Your task to perform on an android device: Open internet settings Image 0: 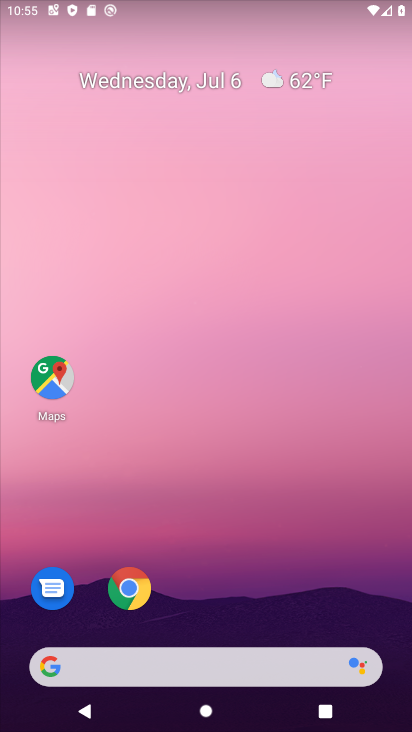
Step 0: drag from (391, 619) to (326, 136)
Your task to perform on an android device: Open internet settings Image 1: 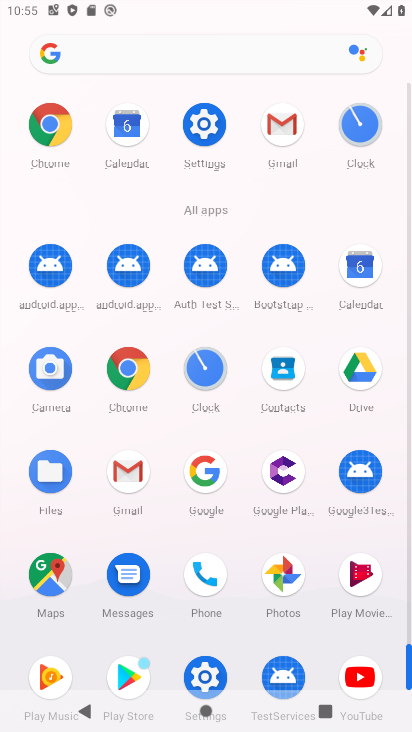
Step 1: click (205, 678)
Your task to perform on an android device: Open internet settings Image 2: 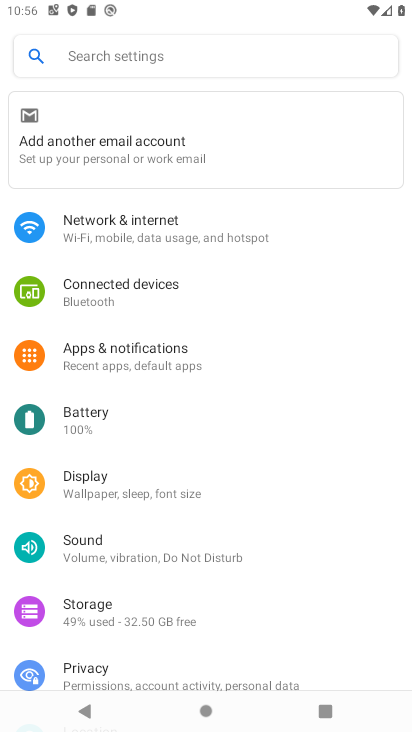
Step 2: click (103, 229)
Your task to perform on an android device: Open internet settings Image 3: 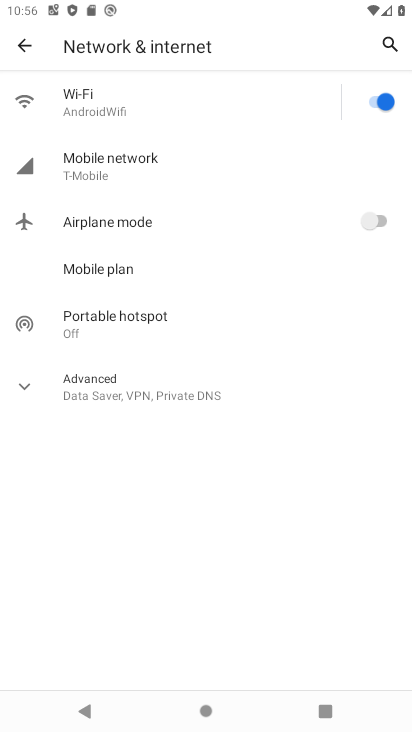
Step 3: click (44, 379)
Your task to perform on an android device: Open internet settings Image 4: 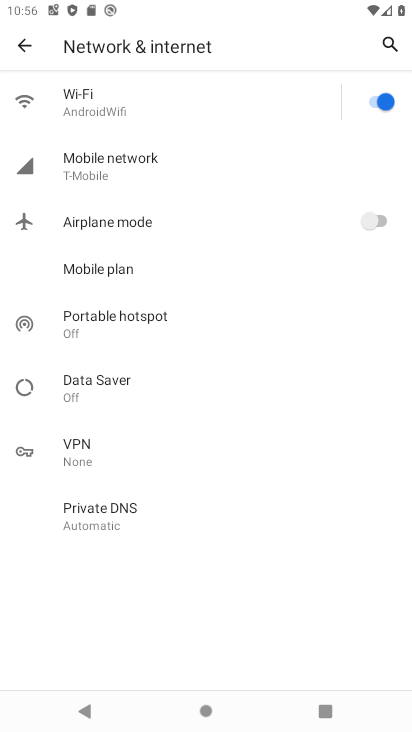
Step 4: click (108, 159)
Your task to perform on an android device: Open internet settings Image 5: 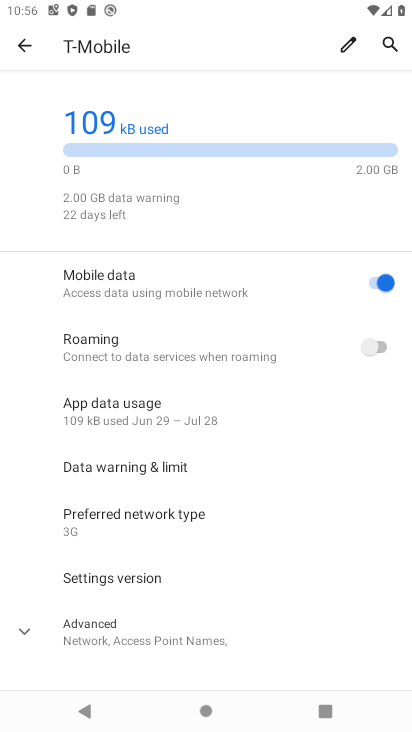
Step 5: drag from (164, 547) to (173, 283)
Your task to perform on an android device: Open internet settings Image 6: 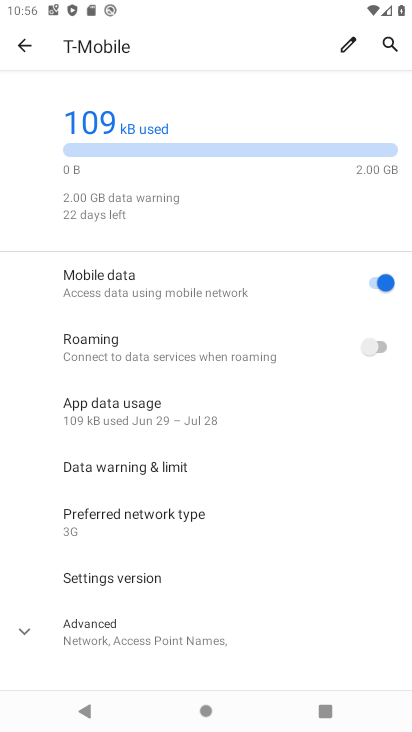
Step 6: click (39, 636)
Your task to perform on an android device: Open internet settings Image 7: 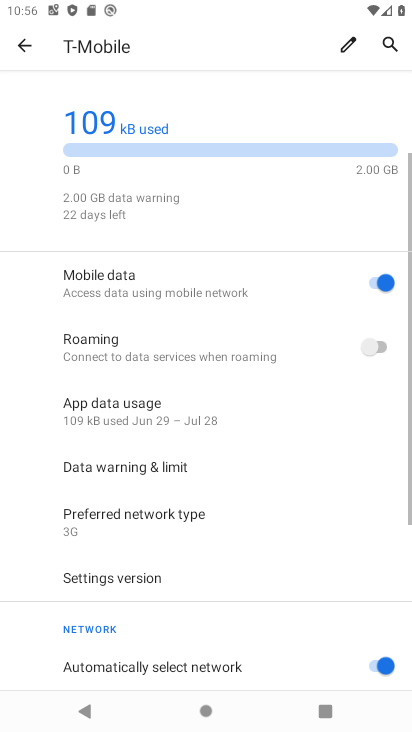
Step 7: task complete